Your task to perform on an android device: Open privacy settings Image 0: 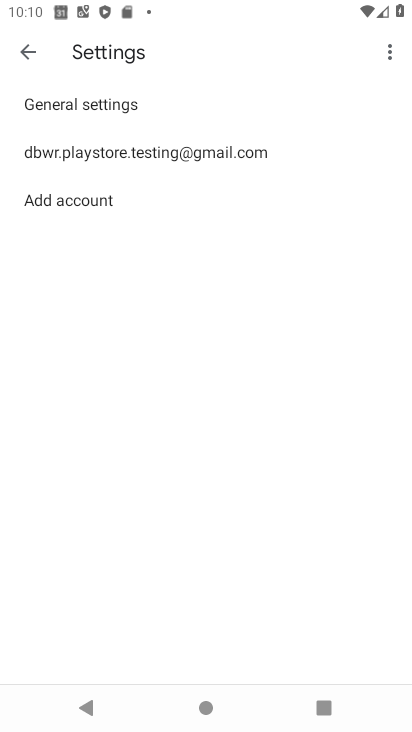
Step 0: press home button
Your task to perform on an android device: Open privacy settings Image 1: 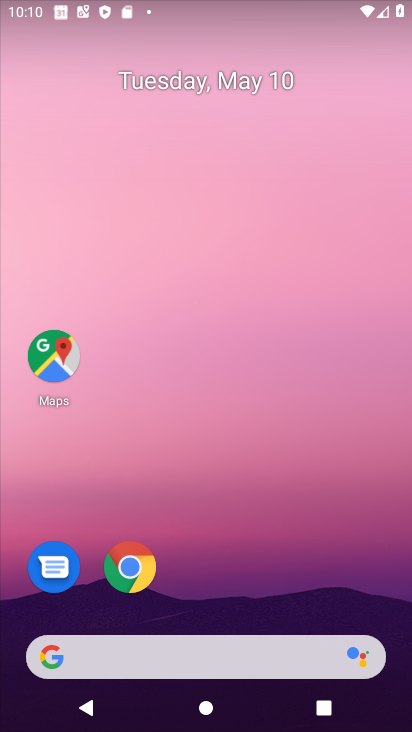
Step 1: drag from (44, 624) to (237, 269)
Your task to perform on an android device: Open privacy settings Image 2: 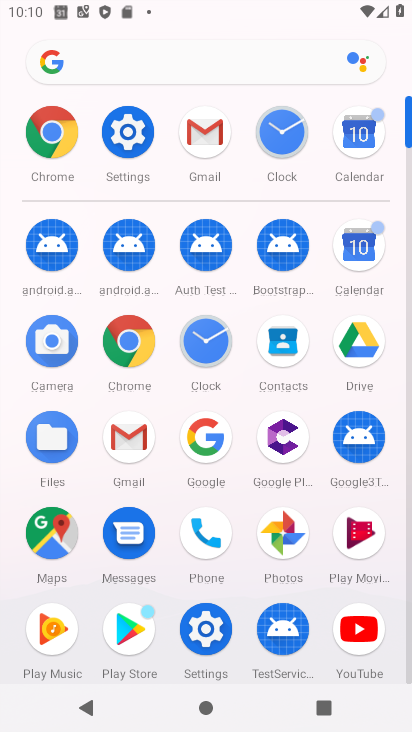
Step 2: click (130, 126)
Your task to perform on an android device: Open privacy settings Image 3: 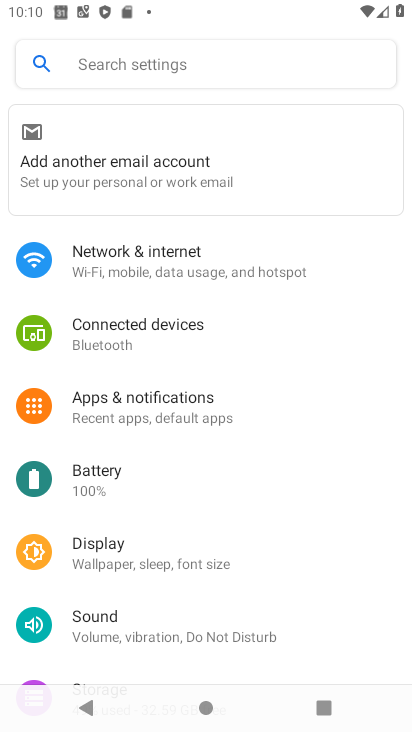
Step 3: drag from (88, 637) to (189, 204)
Your task to perform on an android device: Open privacy settings Image 4: 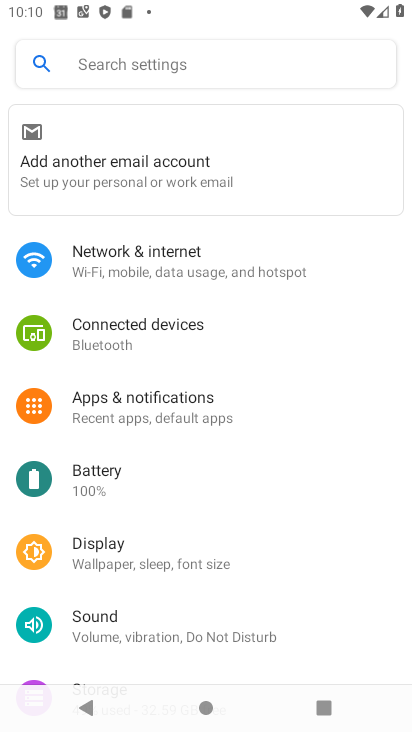
Step 4: drag from (19, 647) to (160, 284)
Your task to perform on an android device: Open privacy settings Image 5: 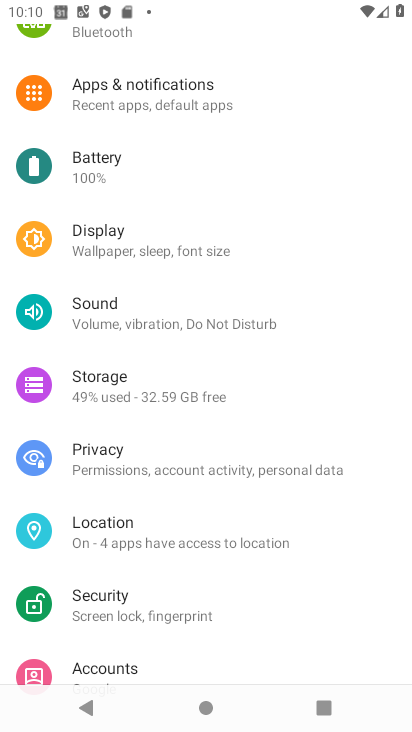
Step 5: click (106, 455)
Your task to perform on an android device: Open privacy settings Image 6: 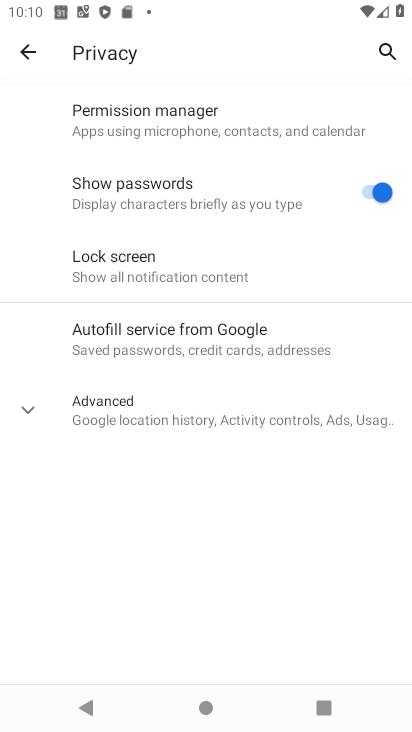
Step 6: task complete